Your task to perform on an android device: Show me recent news Image 0: 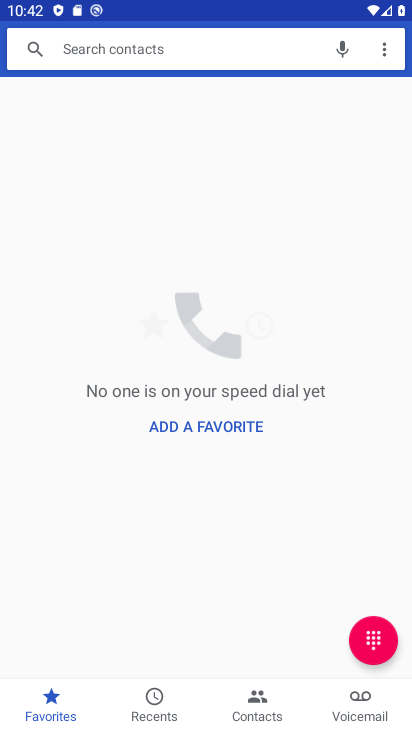
Step 0: press home button
Your task to perform on an android device: Show me recent news Image 1: 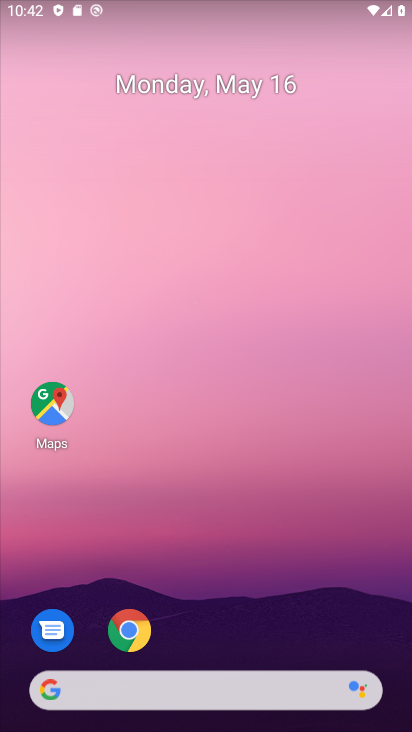
Step 1: click (146, 635)
Your task to perform on an android device: Show me recent news Image 2: 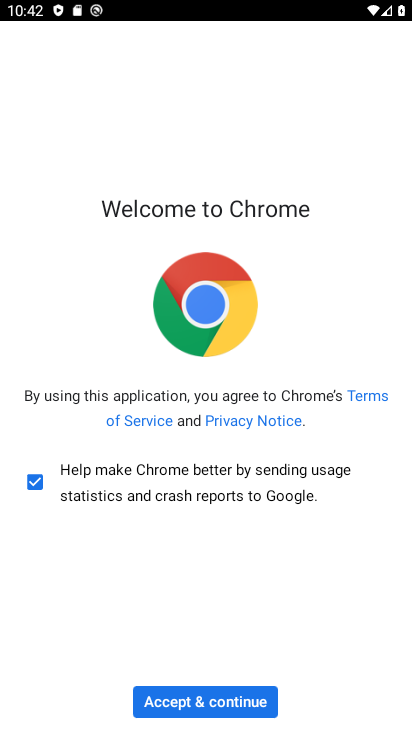
Step 2: click (231, 713)
Your task to perform on an android device: Show me recent news Image 3: 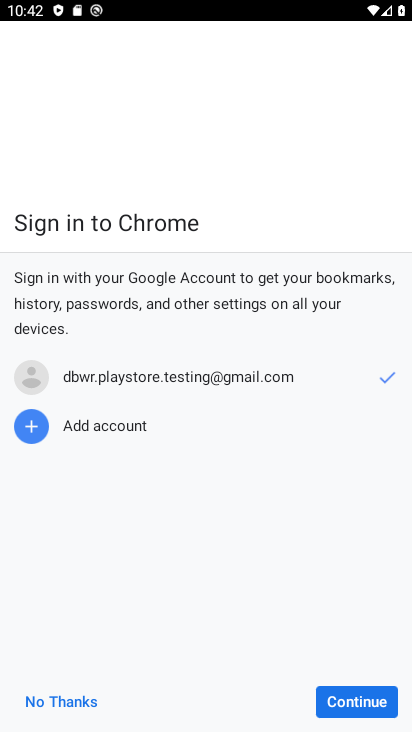
Step 3: click (374, 707)
Your task to perform on an android device: Show me recent news Image 4: 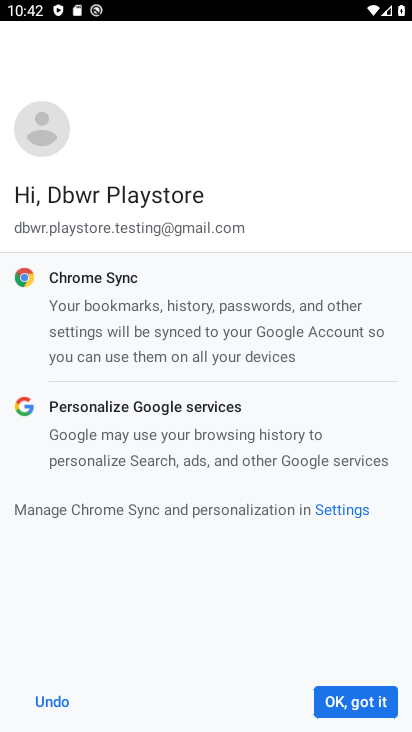
Step 4: click (374, 707)
Your task to perform on an android device: Show me recent news Image 5: 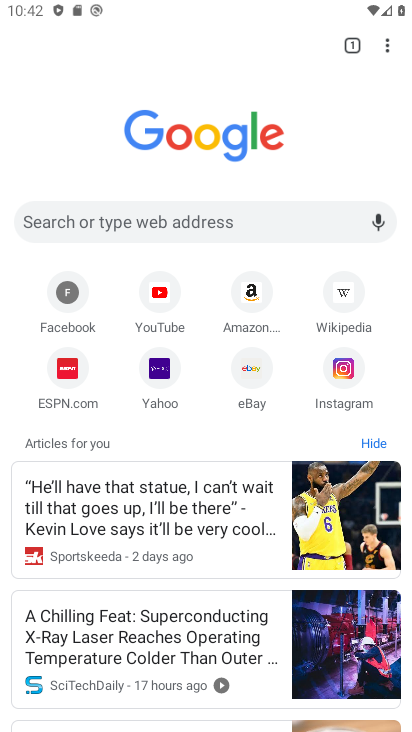
Step 5: click (172, 228)
Your task to perform on an android device: Show me recent news Image 6: 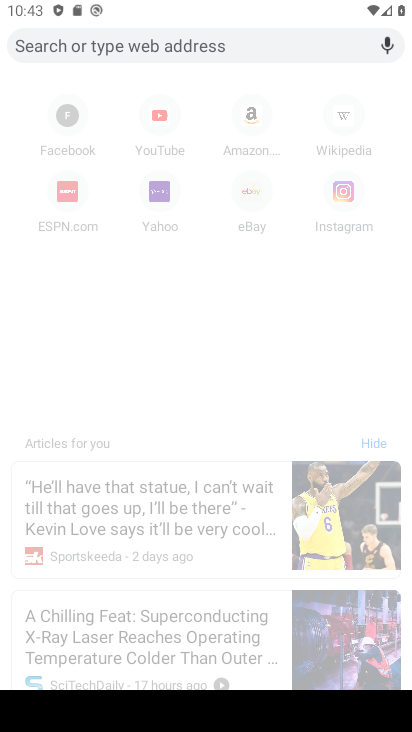
Step 6: type "recent news"
Your task to perform on an android device: Show me recent news Image 7: 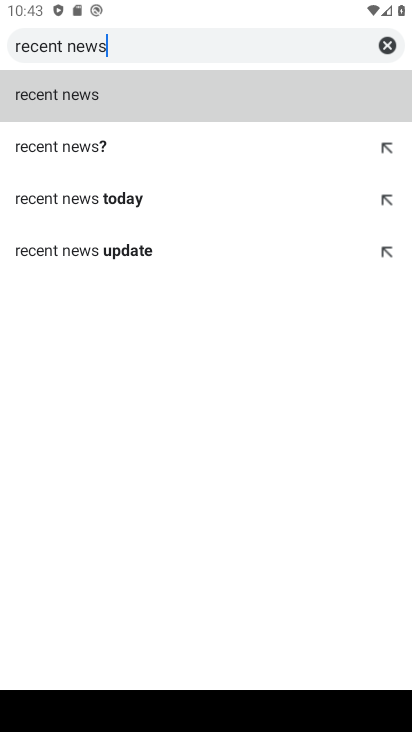
Step 7: click (208, 102)
Your task to perform on an android device: Show me recent news Image 8: 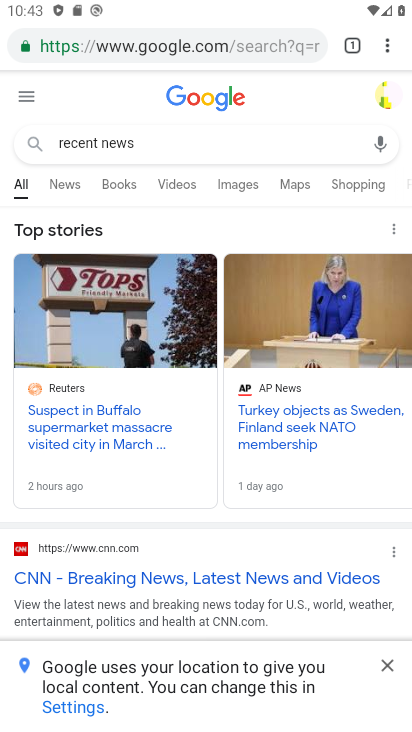
Step 8: task complete